Your task to perform on an android device: See recent photos Image 0: 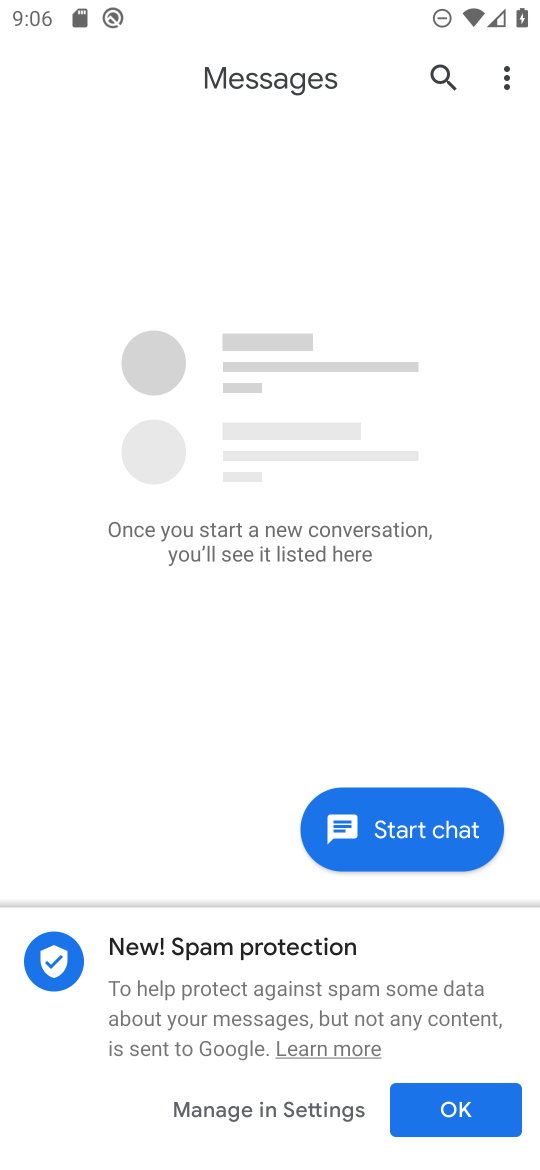
Step 0: press home button
Your task to perform on an android device: See recent photos Image 1: 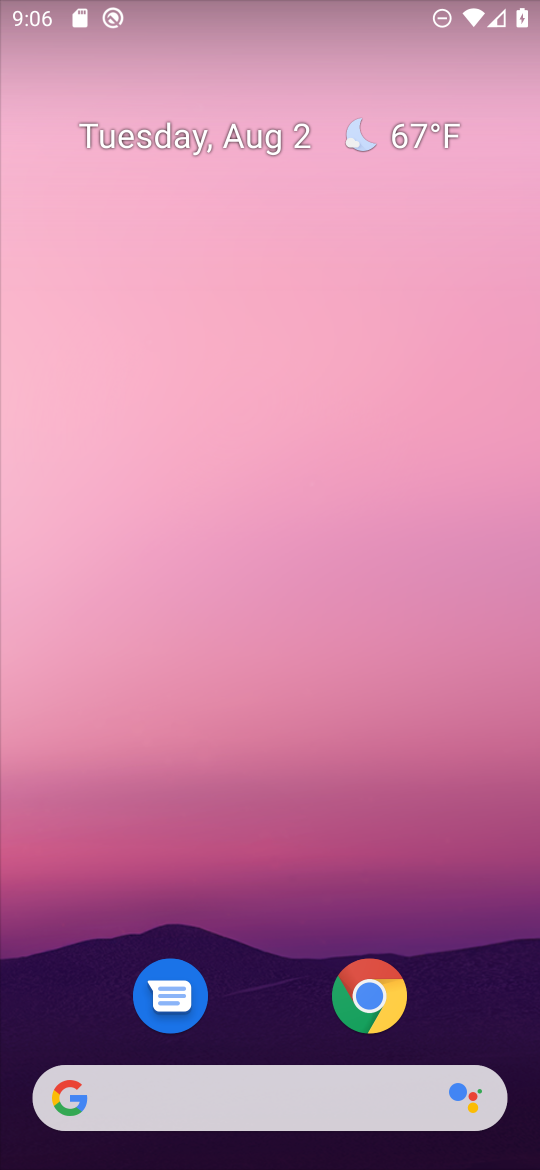
Step 1: drag from (247, 1009) to (218, 103)
Your task to perform on an android device: See recent photos Image 2: 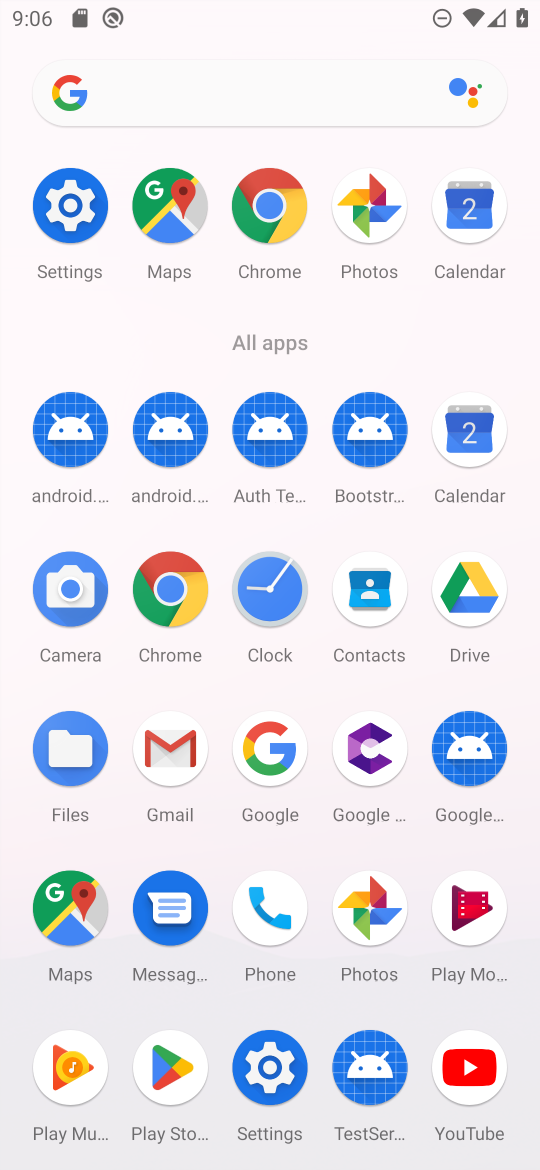
Step 2: click (376, 917)
Your task to perform on an android device: See recent photos Image 3: 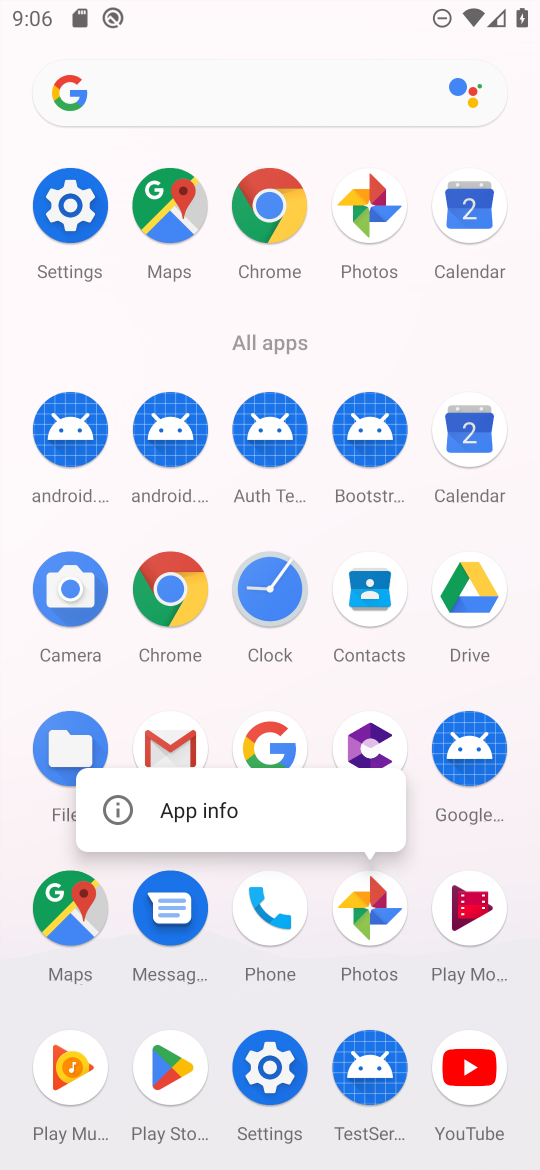
Step 3: click (377, 896)
Your task to perform on an android device: See recent photos Image 4: 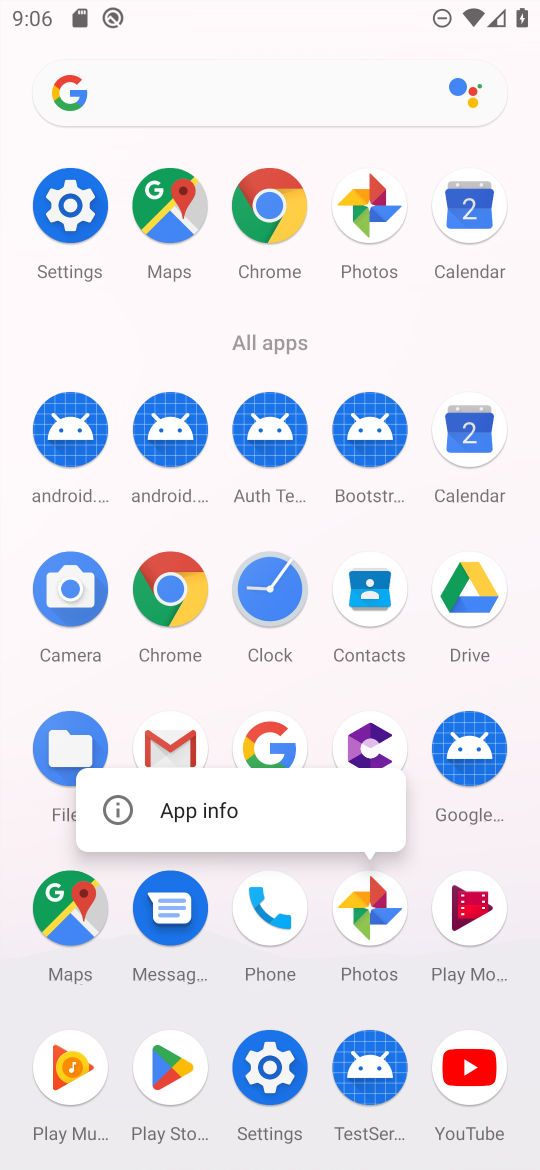
Step 4: click (374, 889)
Your task to perform on an android device: See recent photos Image 5: 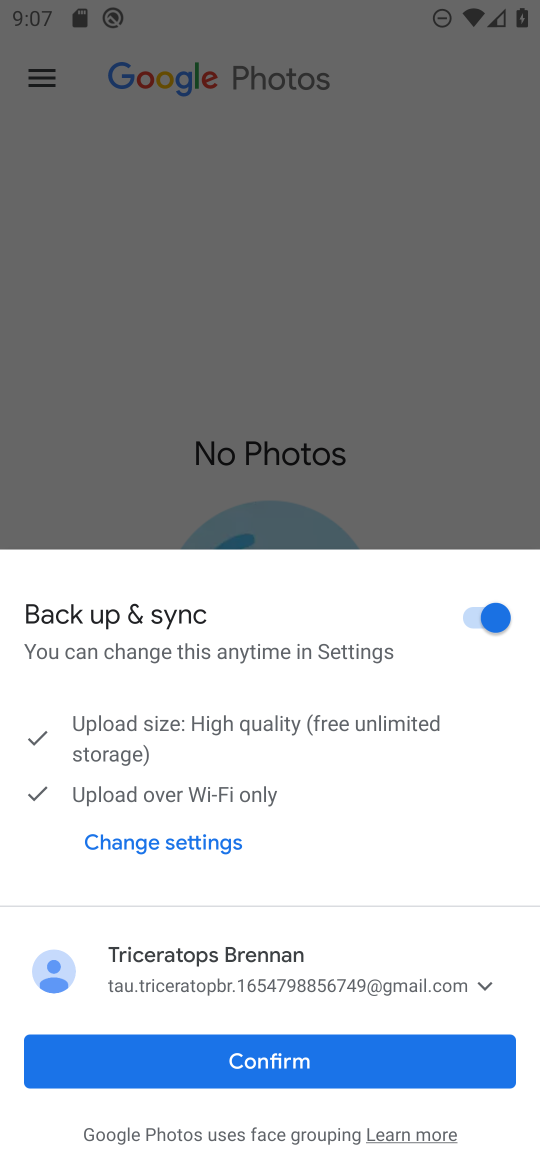
Step 5: click (270, 1049)
Your task to perform on an android device: See recent photos Image 6: 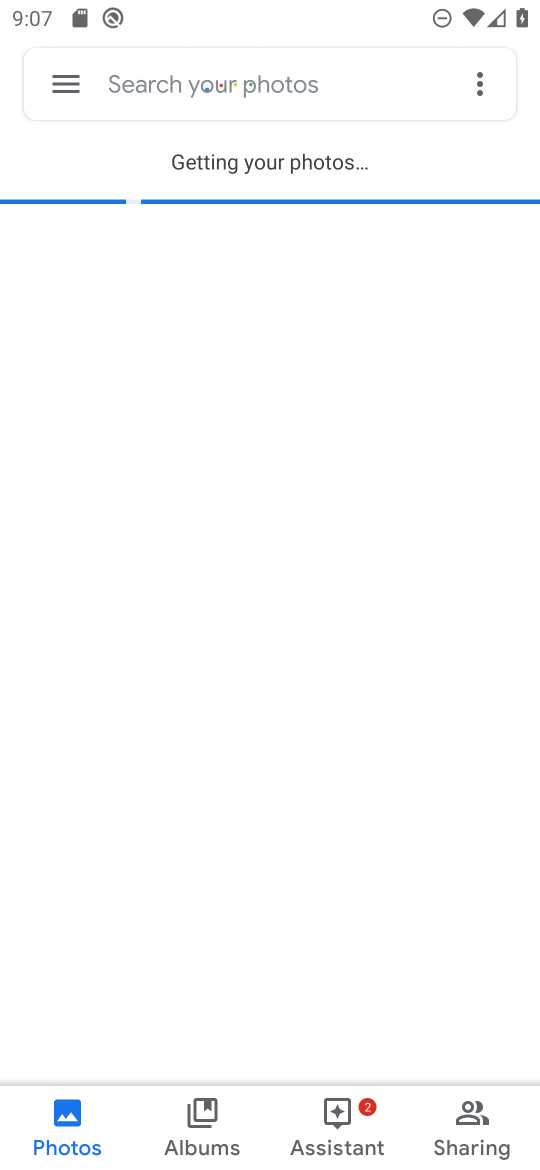
Step 6: click (76, 1116)
Your task to perform on an android device: See recent photos Image 7: 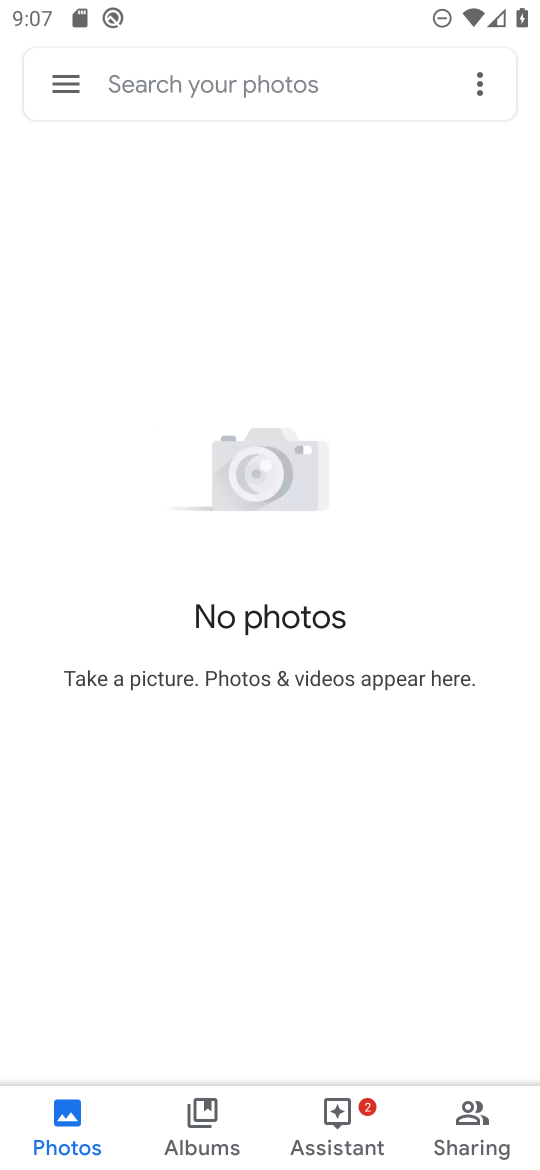
Step 7: task complete